Your task to perform on an android device: Open notification settings Image 0: 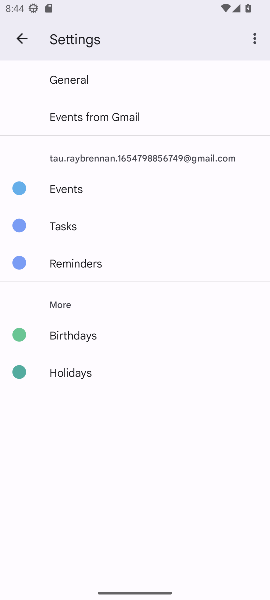
Step 0: press home button
Your task to perform on an android device: Open notification settings Image 1: 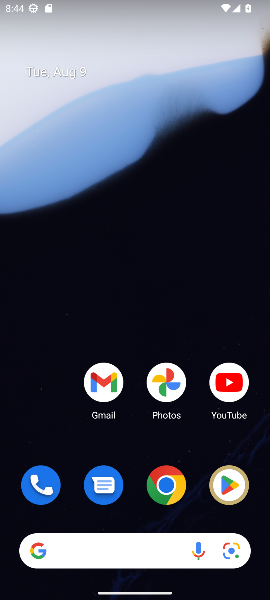
Step 1: drag from (168, 446) to (51, 68)
Your task to perform on an android device: Open notification settings Image 2: 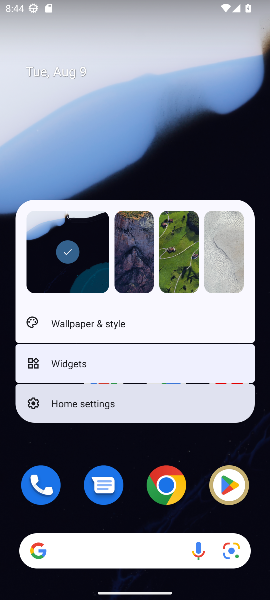
Step 2: click (145, 147)
Your task to perform on an android device: Open notification settings Image 3: 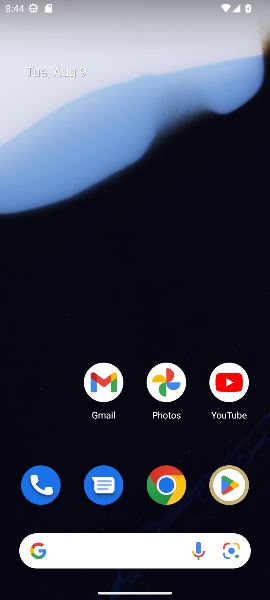
Step 3: drag from (90, 445) to (126, 45)
Your task to perform on an android device: Open notification settings Image 4: 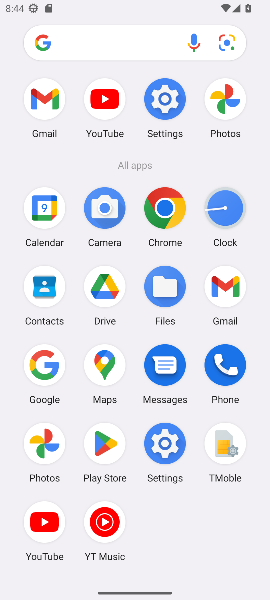
Step 4: click (165, 442)
Your task to perform on an android device: Open notification settings Image 5: 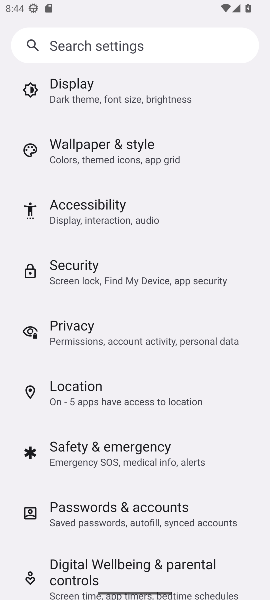
Step 5: drag from (92, 155) to (95, 362)
Your task to perform on an android device: Open notification settings Image 6: 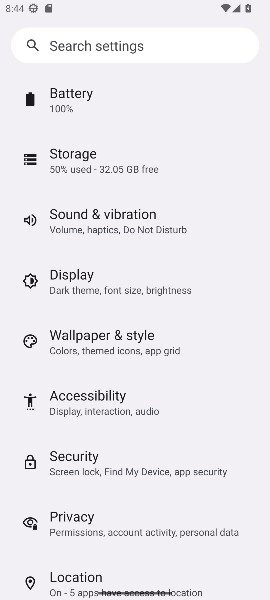
Step 6: drag from (153, 215) to (166, 406)
Your task to perform on an android device: Open notification settings Image 7: 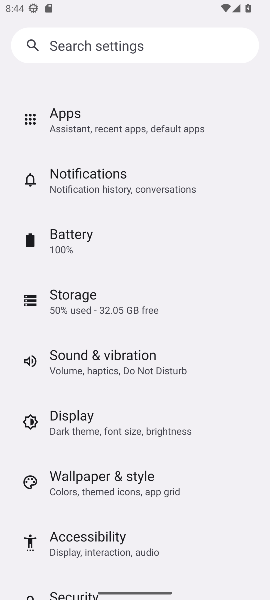
Step 7: click (65, 173)
Your task to perform on an android device: Open notification settings Image 8: 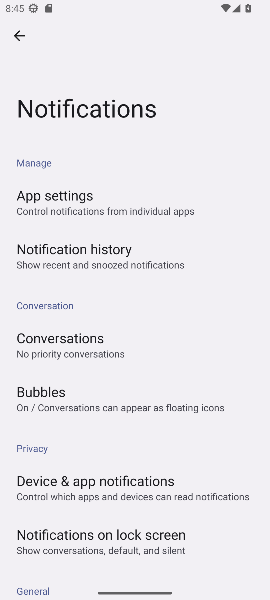
Step 8: task complete